Your task to perform on an android device: Search for pizza restaurants on Maps Image 0: 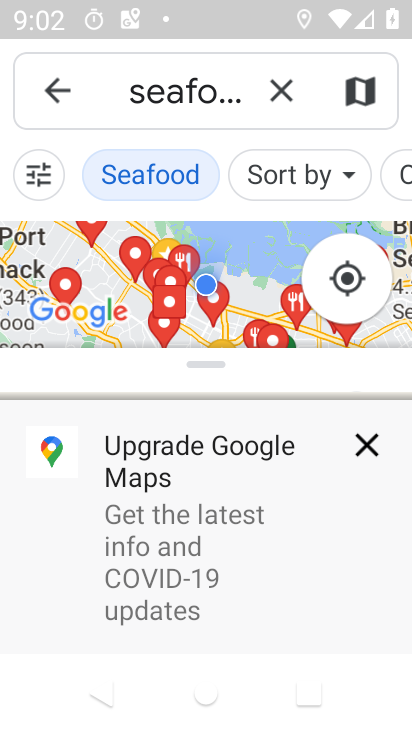
Step 0: click (374, 449)
Your task to perform on an android device: Search for pizza restaurants on Maps Image 1: 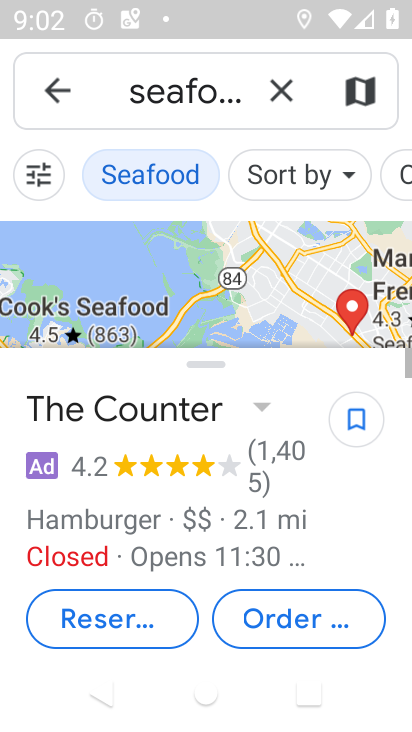
Step 1: click (277, 87)
Your task to perform on an android device: Search for pizza restaurants on Maps Image 2: 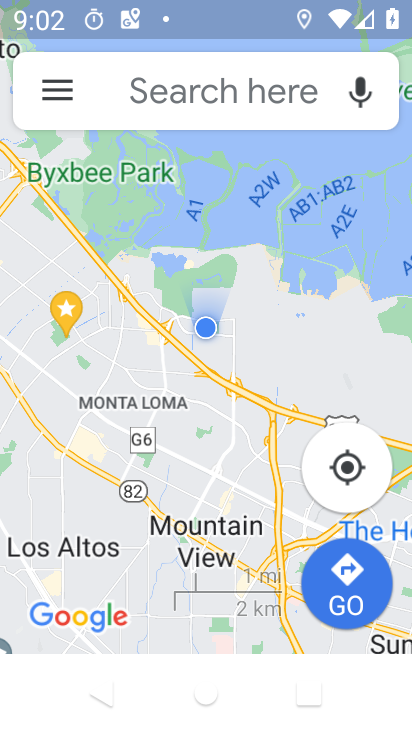
Step 2: click (206, 90)
Your task to perform on an android device: Search for pizza restaurants on Maps Image 3: 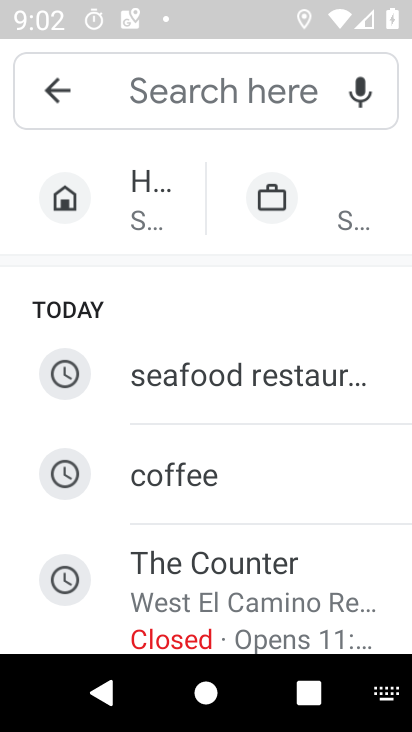
Step 3: type "pizza"
Your task to perform on an android device: Search for pizza restaurants on Maps Image 4: 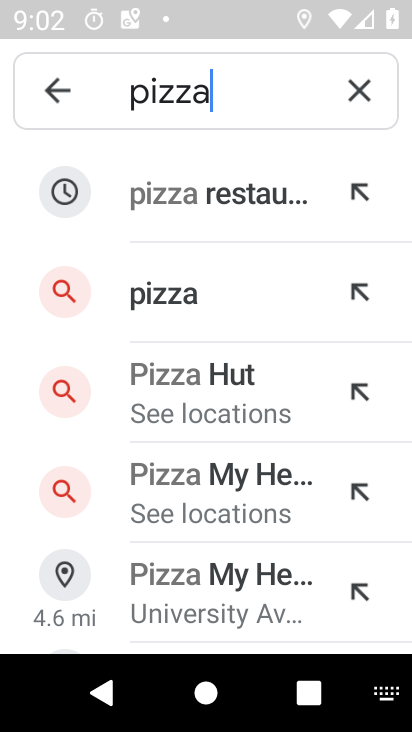
Step 4: click (237, 196)
Your task to perform on an android device: Search for pizza restaurants on Maps Image 5: 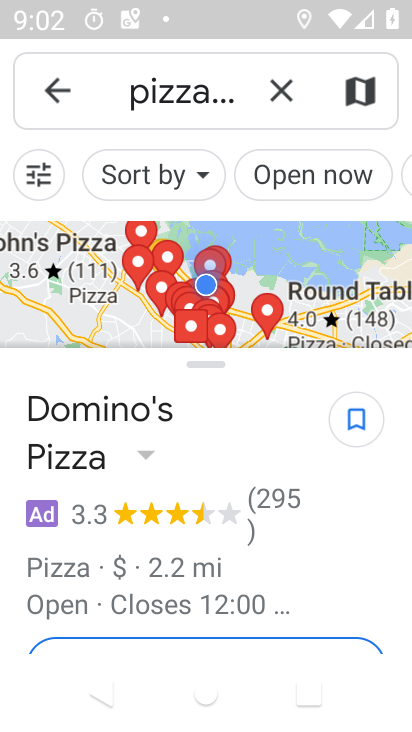
Step 5: task complete